Your task to perform on an android device: Go to notification settings Image 0: 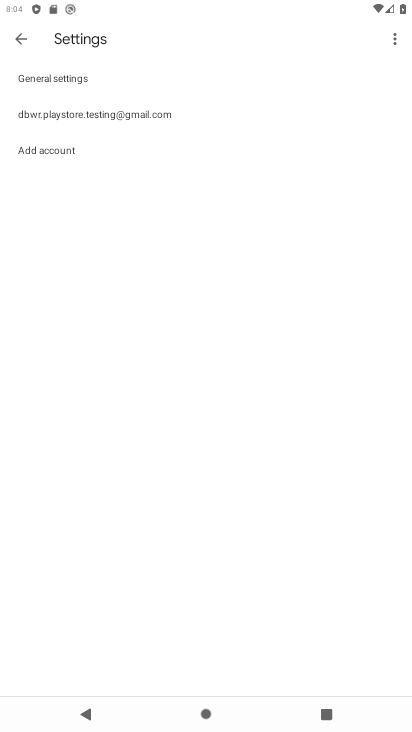
Step 0: press home button
Your task to perform on an android device: Go to notification settings Image 1: 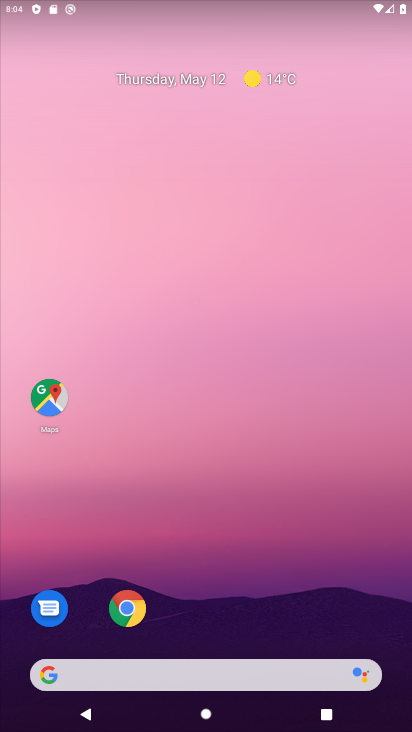
Step 1: drag from (181, 637) to (234, 261)
Your task to perform on an android device: Go to notification settings Image 2: 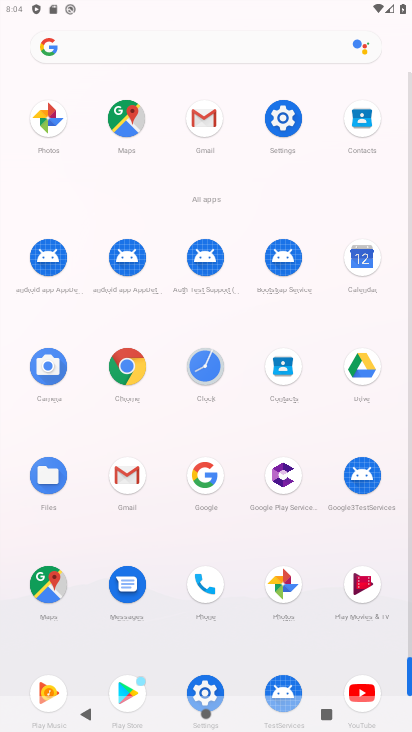
Step 2: click (279, 125)
Your task to perform on an android device: Go to notification settings Image 3: 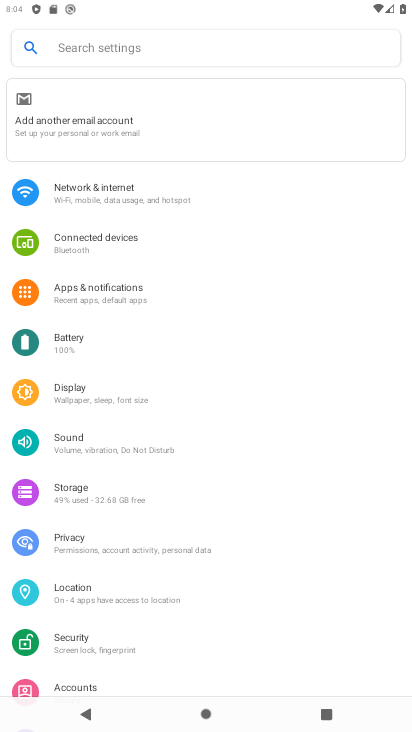
Step 3: click (108, 300)
Your task to perform on an android device: Go to notification settings Image 4: 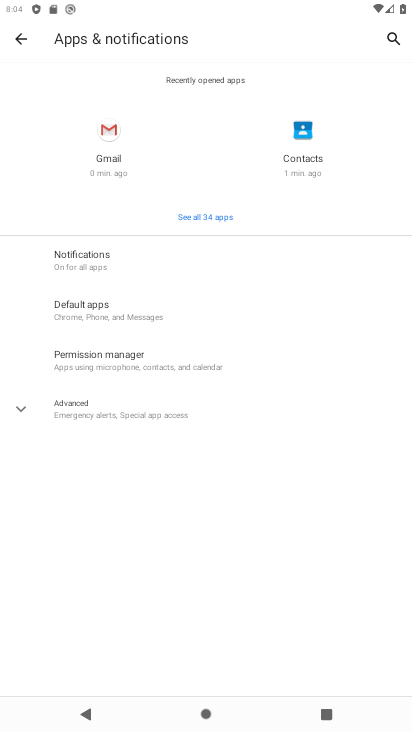
Step 4: click (99, 396)
Your task to perform on an android device: Go to notification settings Image 5: 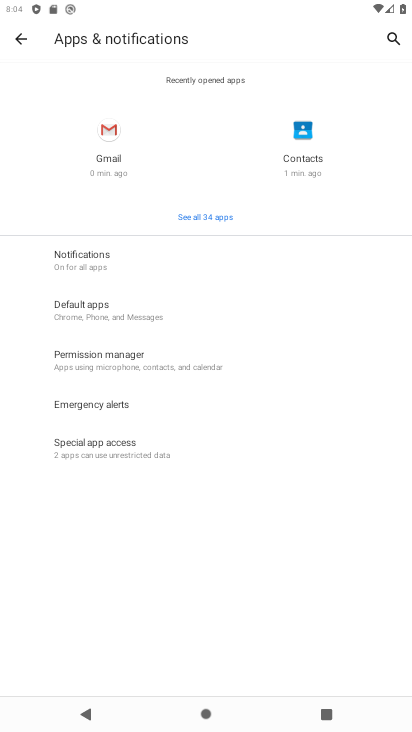
Step 5: task complete